Your task to perform on an android device: Open Chrome and go to settings Image 0: 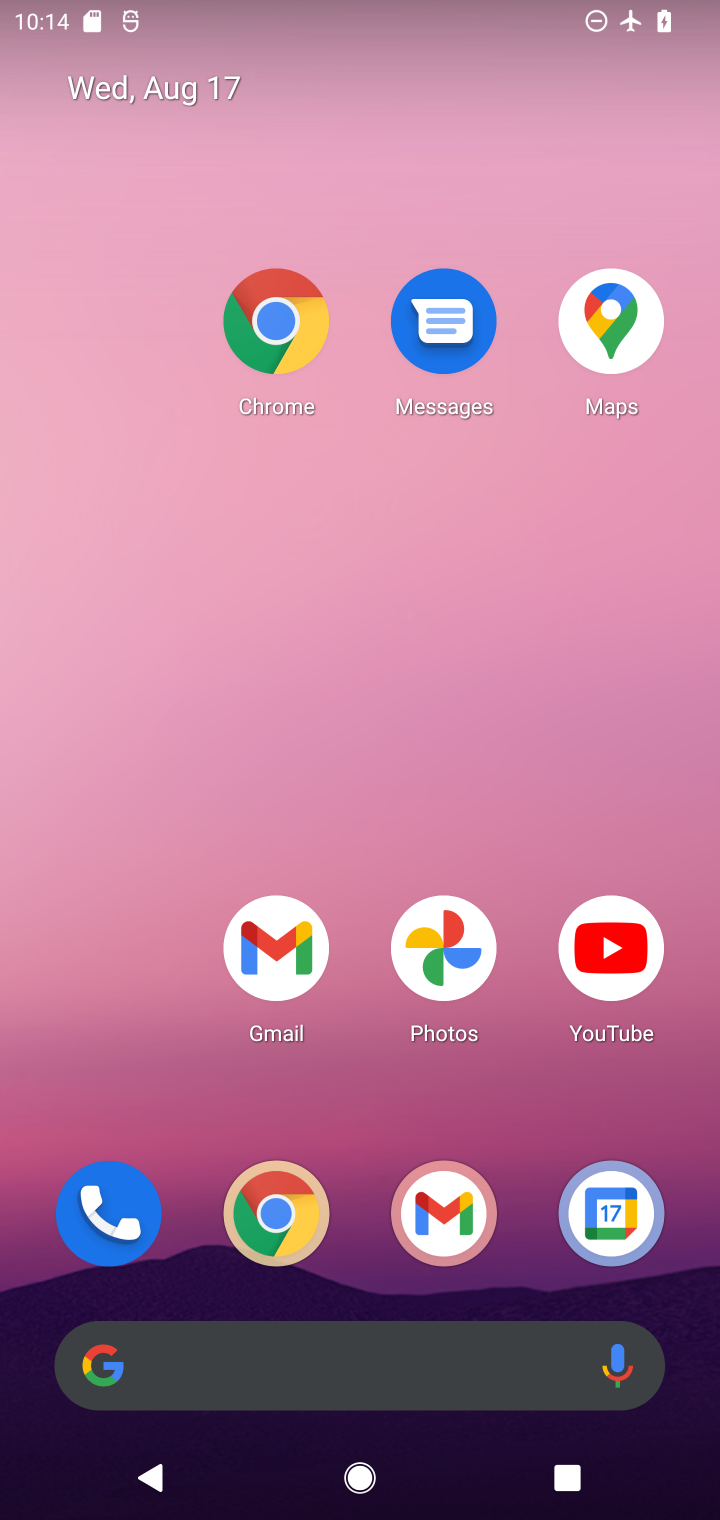
Step 0: click (245, 1213)
Your task to perform on an android device: Open Chrome and go to settings Image 1: 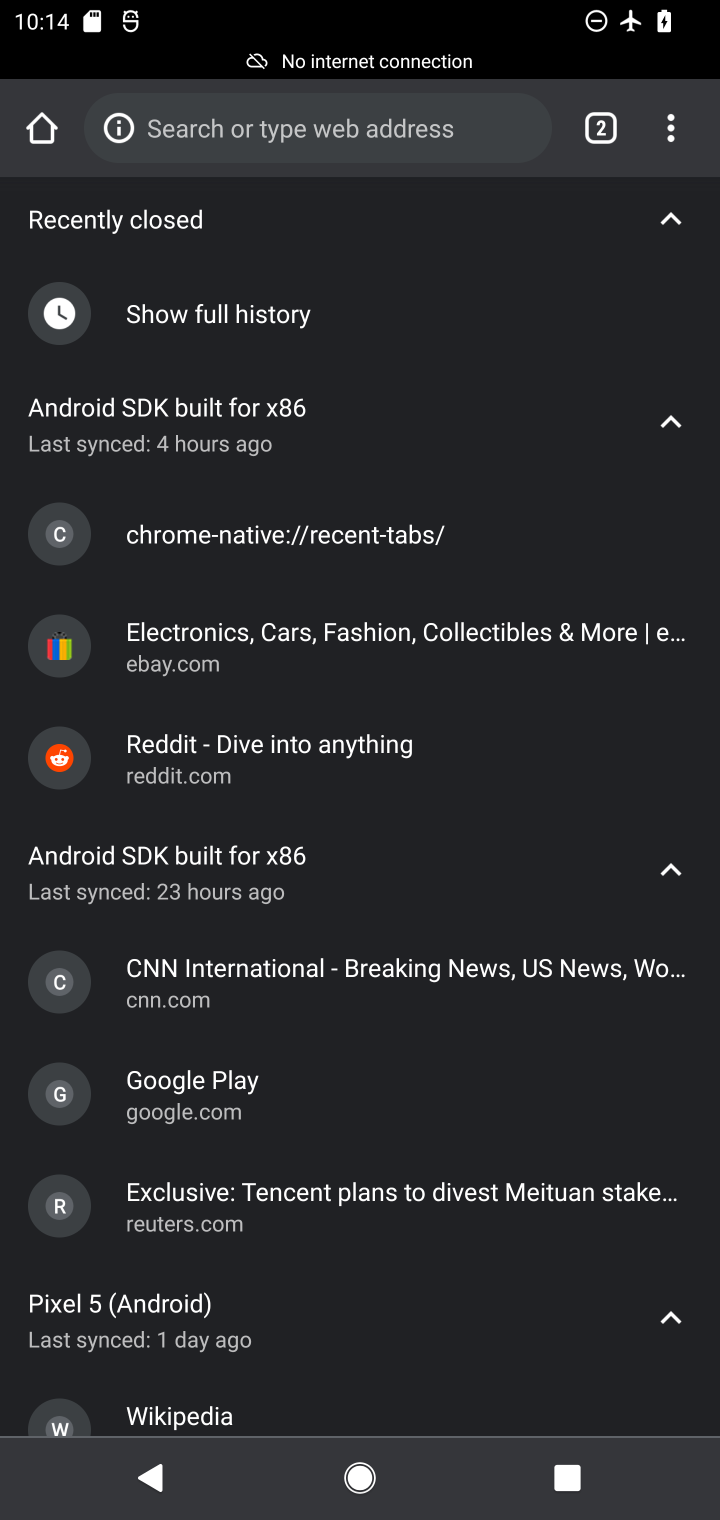
Step 1: click (657, 142)
Your task to perform on an android device: Open Chrome and go to settings Image 2: 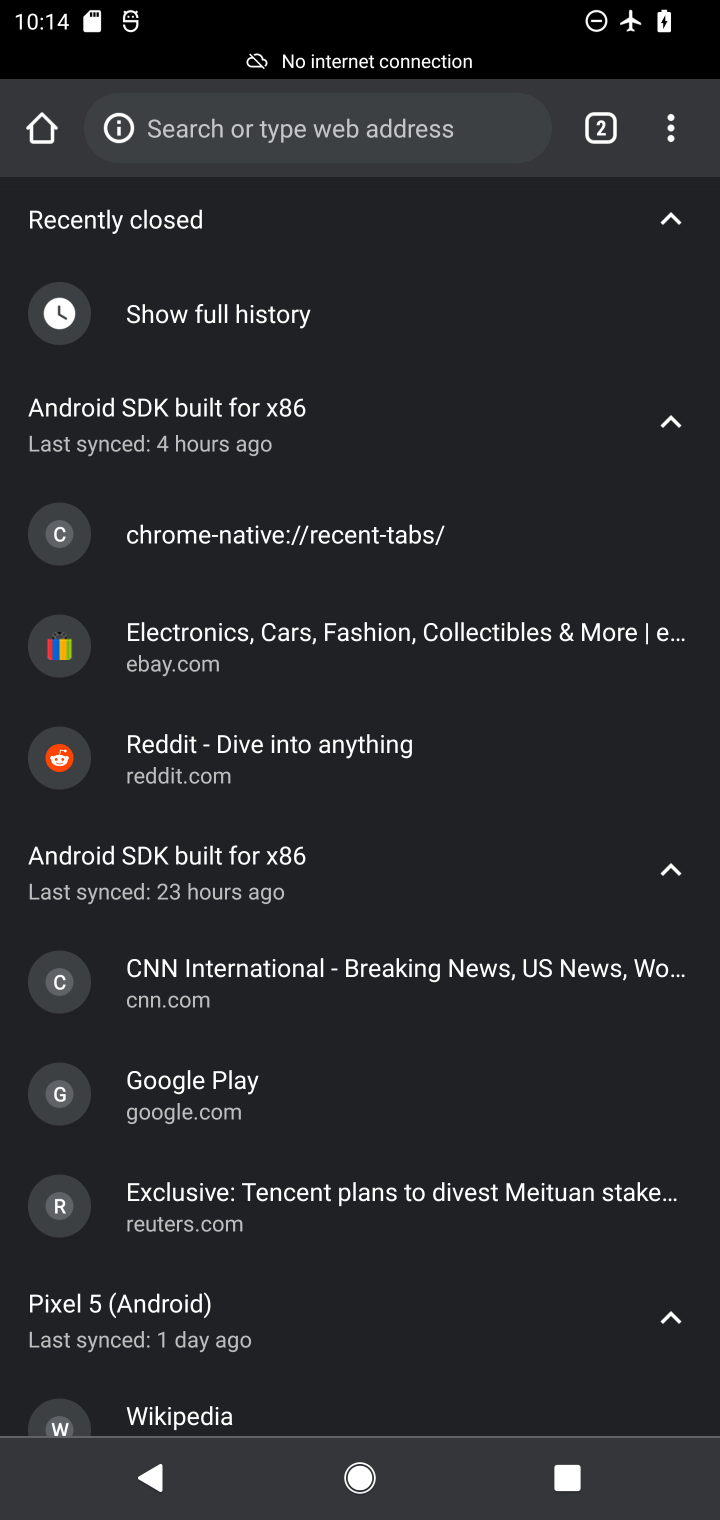
Step 2: click (674, 158)
Your task to perform on an android device: Open Chrome and go to settings Image 3: 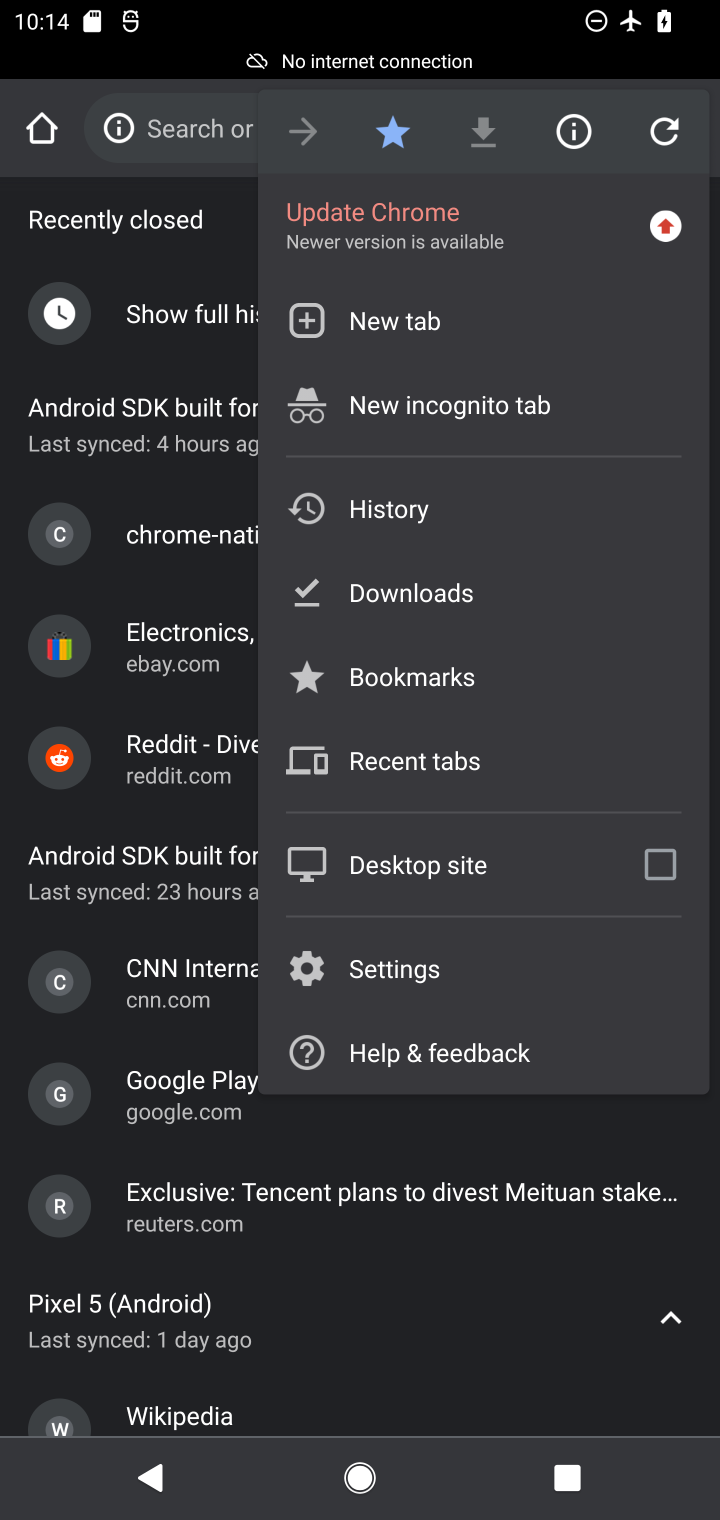
Step 3: click (434, 969)
Your task to perform on an android device: Open Chrome and go to settings Image 4: 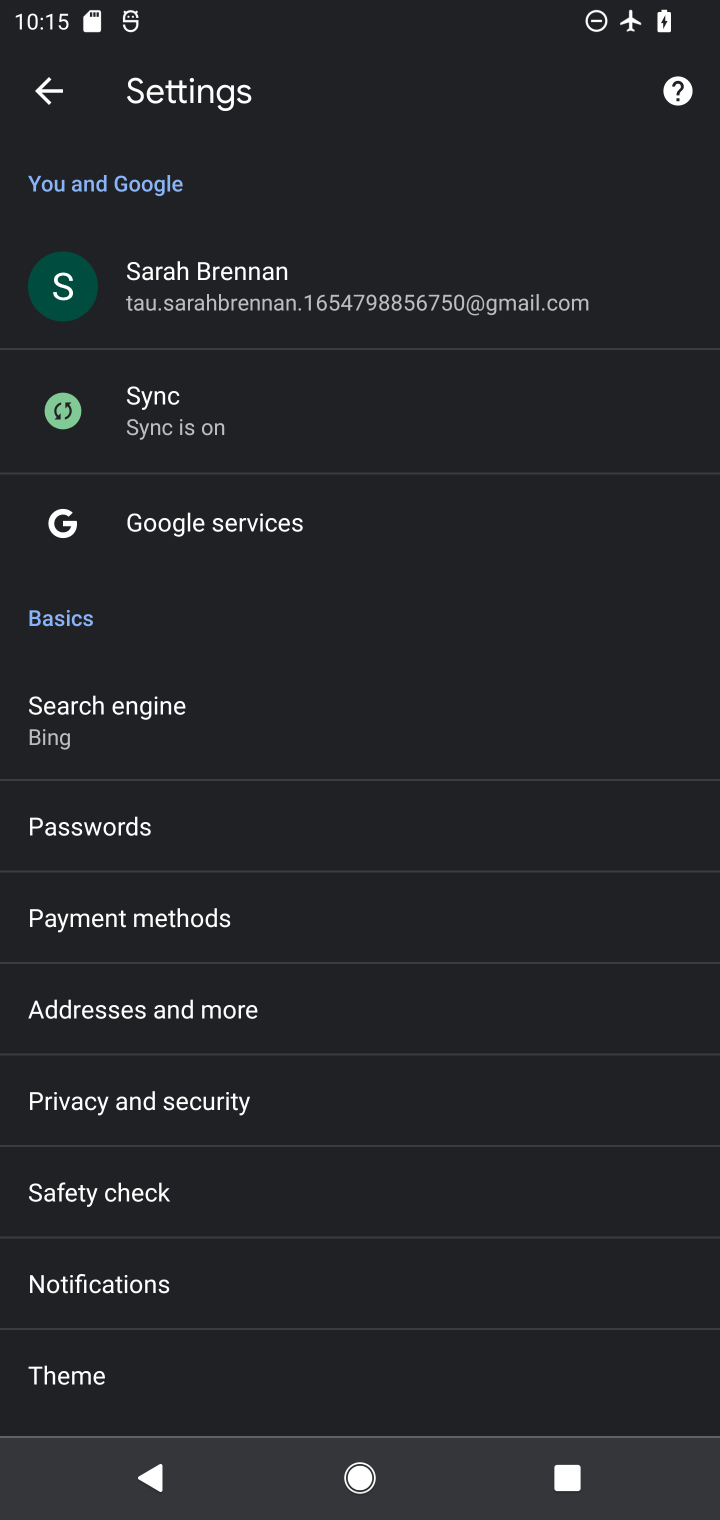
Step 4: task complete